Your task to perform on an android device: Open Chrome and go to settings Image 0: 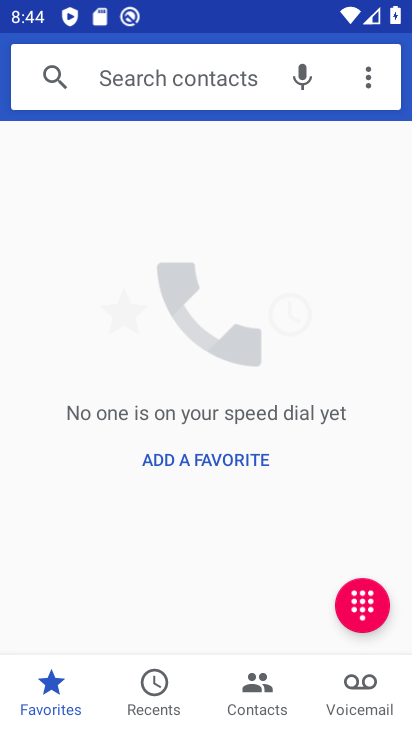
Step 0: press home button
Your task to perform on an android device: Open Chrome and go to settings Image 1: 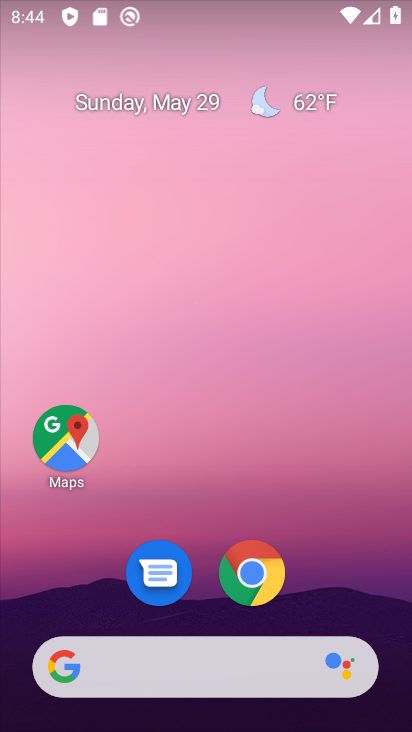
Step 1: click (270, 581)
Your task to perform on an android device: Open Chrome and go to settings Image 2: 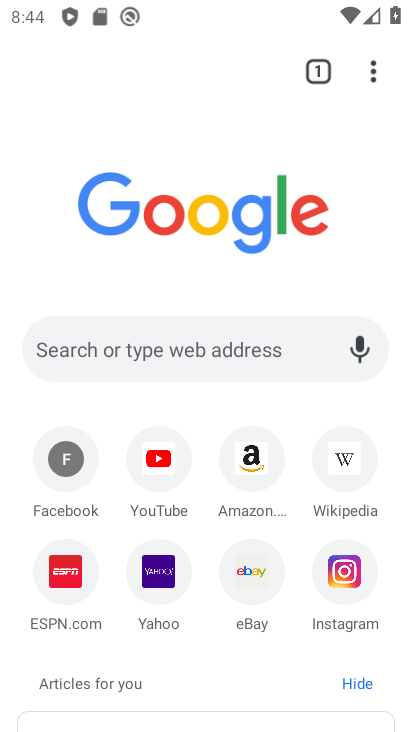
Step 2: task complete